Your task to perform on an android device: open wifi settings Image 0: 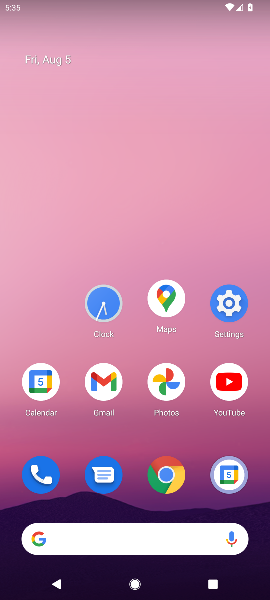
Step 0: click (231, 295)
Your task to perform on an android device: open wifi settings Image 1: 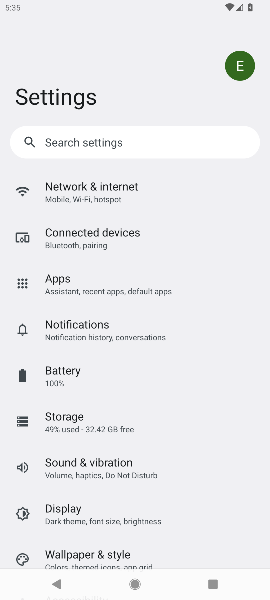
Step 1: click (90, 197)
Your task to perform on an android device: open wifi settings Image 2: 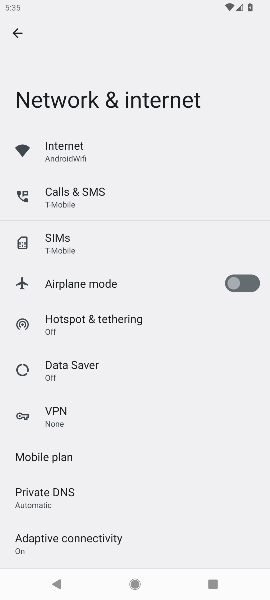
Step 2: click (58, 147)
Your task to perform on an android device: open wifi settings Image 3: 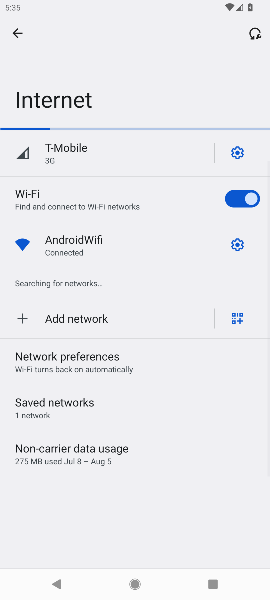
Step 3: click (240, 245)
Your task to perform on an android device: open wifi settings Image 4: 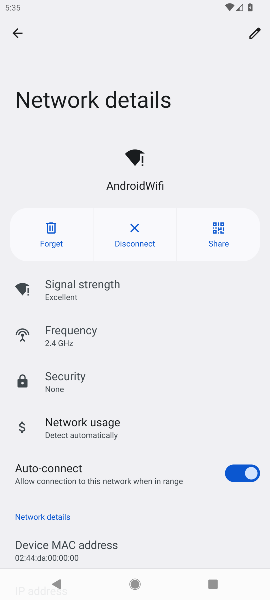
Step 4: task complete